Your task to perform on an android device: Open the Play Movies app and select the watchlist tab. Image 0: 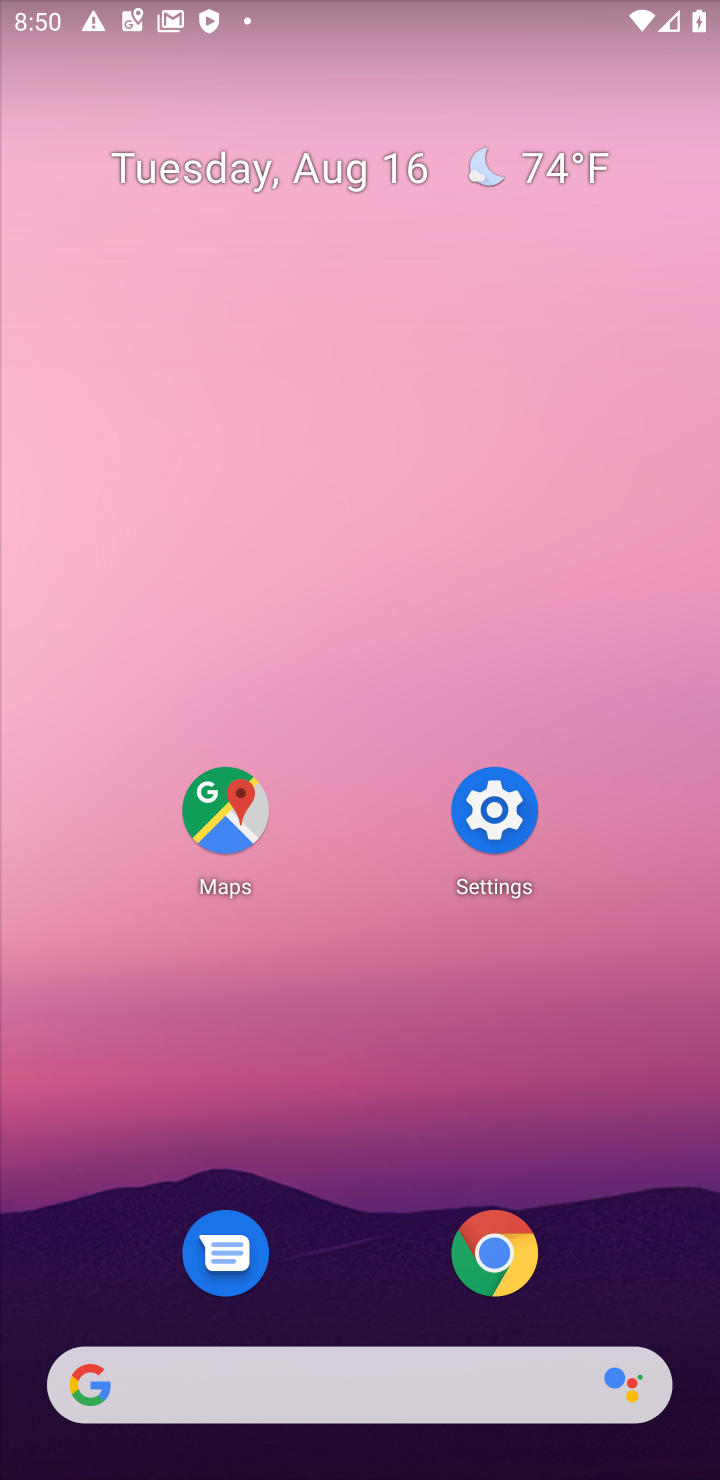
Step 0: press home button
Your task to perform on an android device: Open the Play Movies app and select the watchlist tab. Image 1: 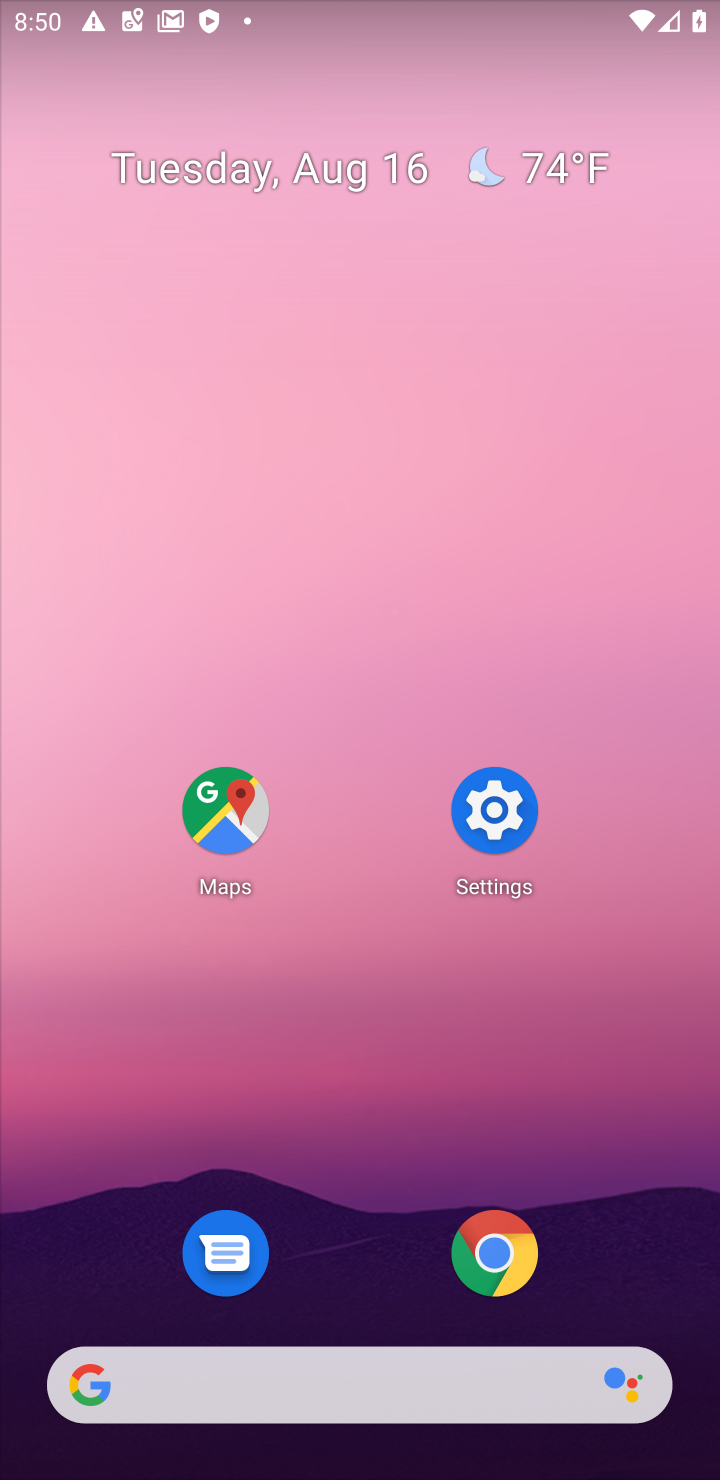
Step 1: drag from (349, 1322) to (648, 66)
Your task to perform on an android device: Open the Play Movies app and select the watchlist tab. Image 2: 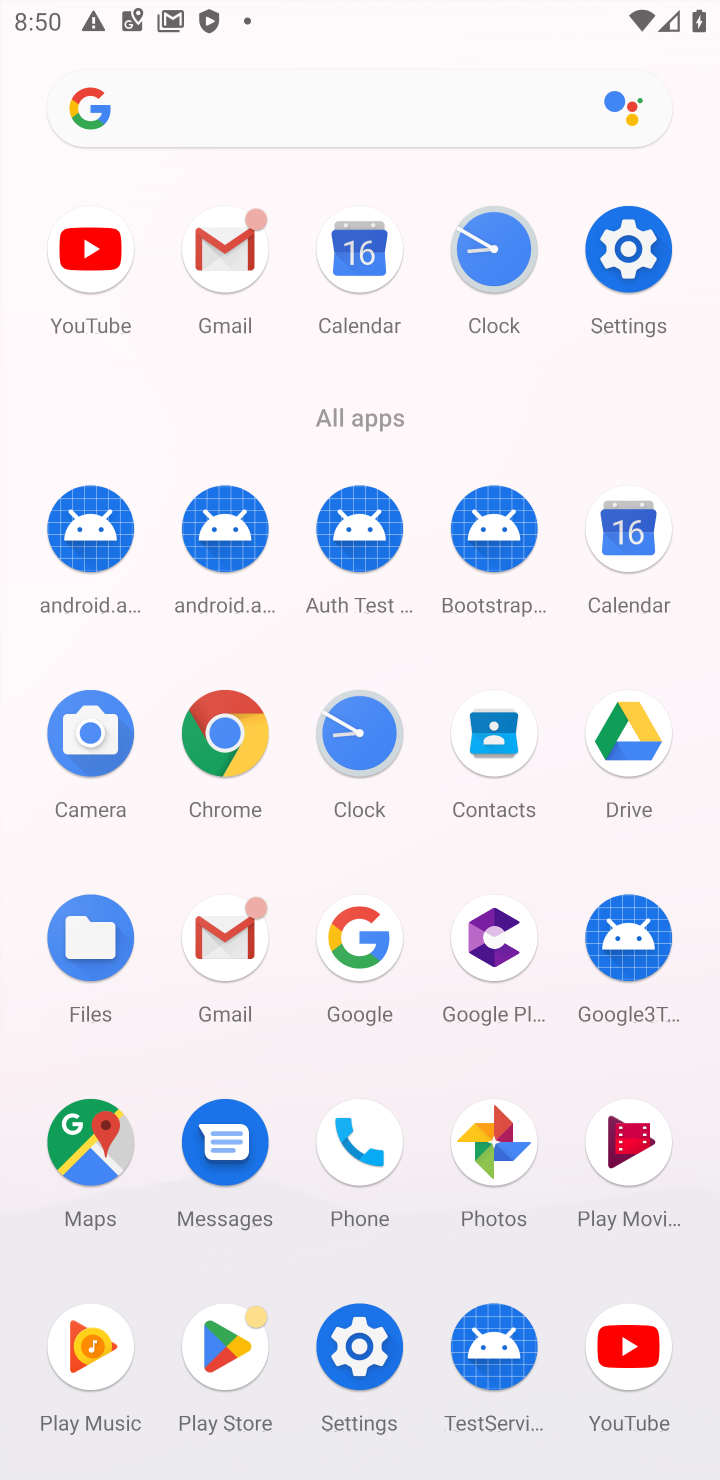
Step 2: click (630, 1133)
Your task to perform on an android device: Open the Play Movies app and select the watchlist tab. Image 3: 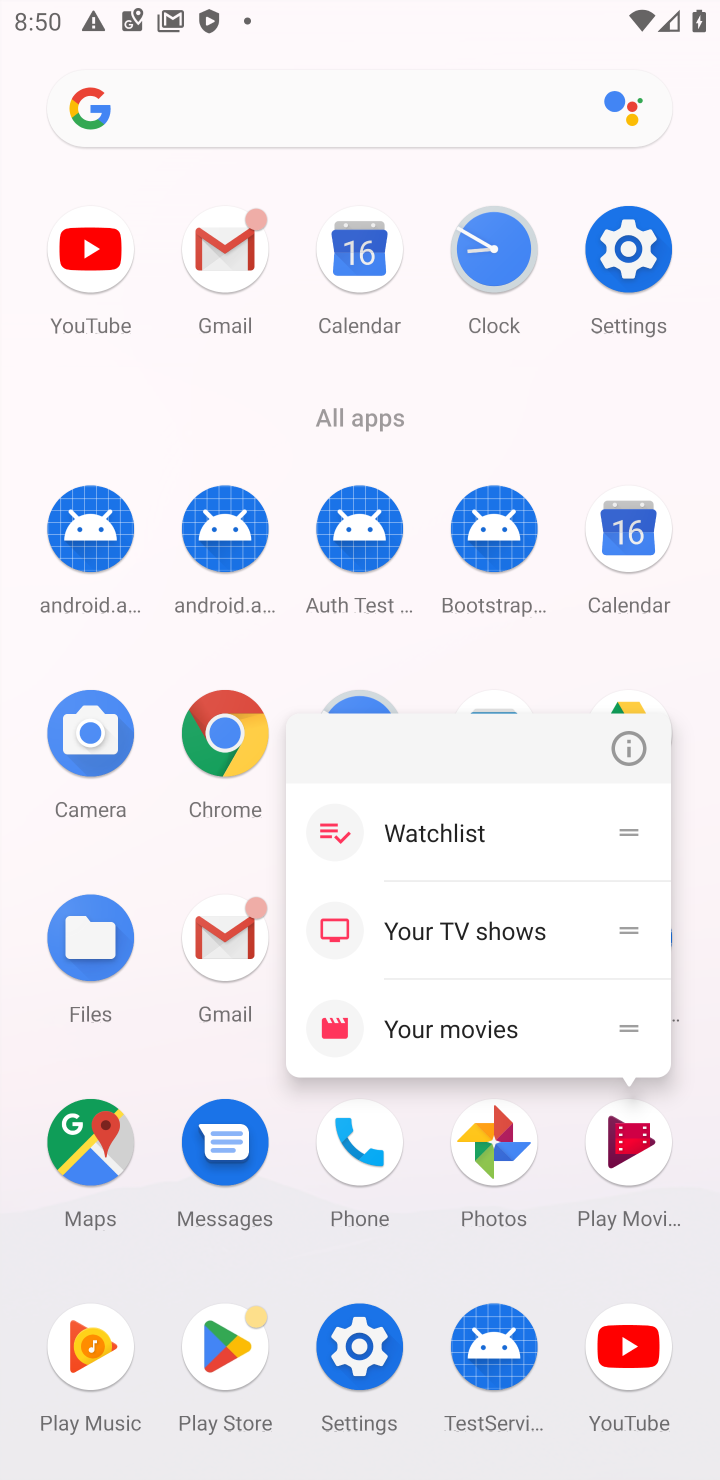
Step 3: click (630, 1137)
Your task to perform on an android device: Open the Play Movies app and select the watchlist tab. Image 4: 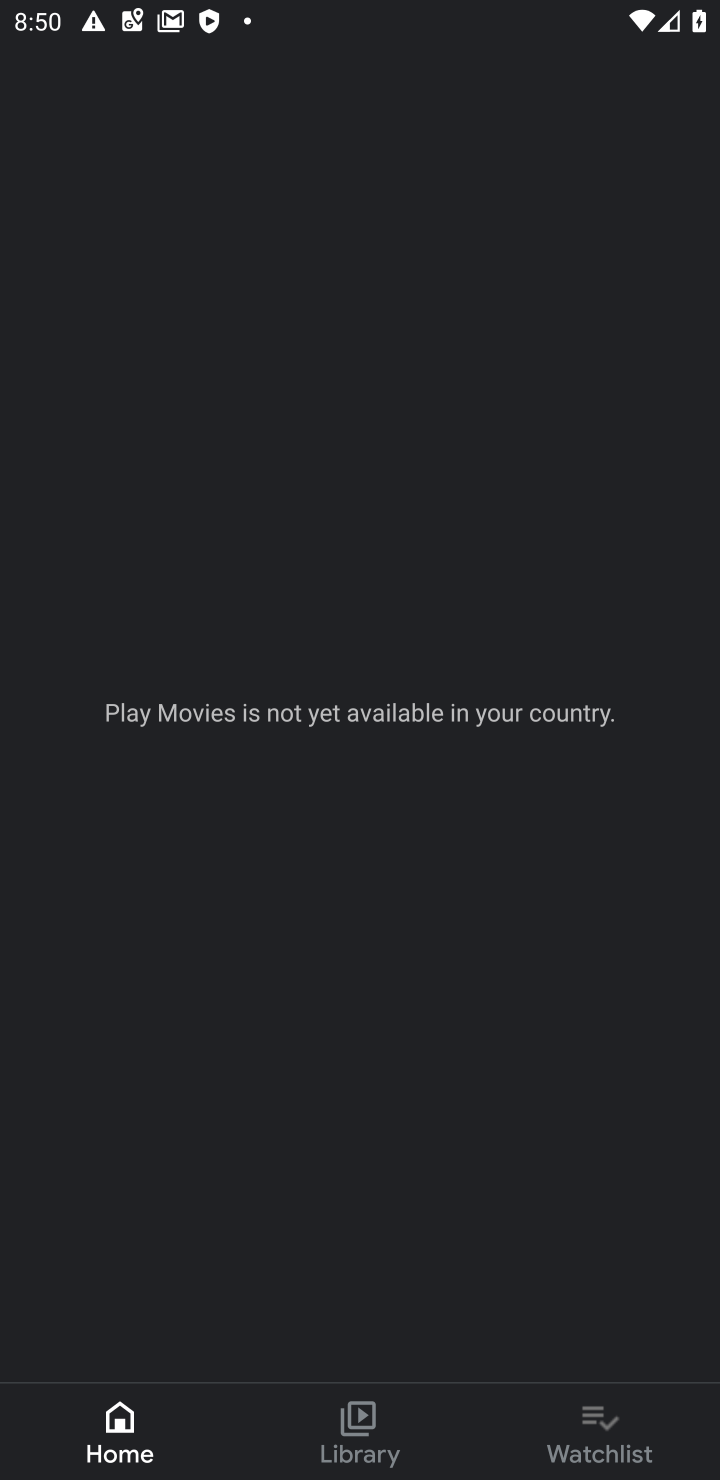
Step 4: click (605, 1422)
Your task to perform on an android device: Open the Play Movies app and select the watchlist tab. Image 5: 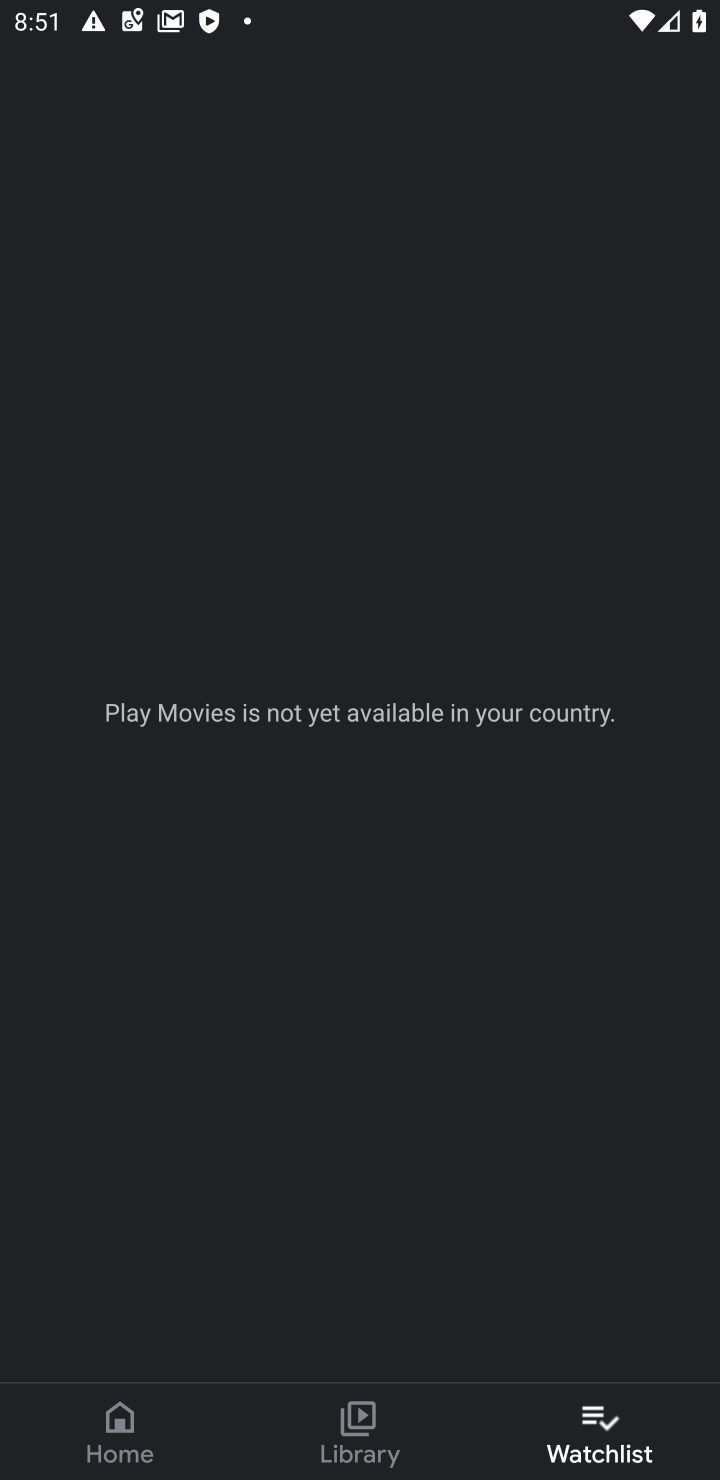
Step 5: task complete